Your task to perform on an android device: Open Chrome and go to settings Image 0: 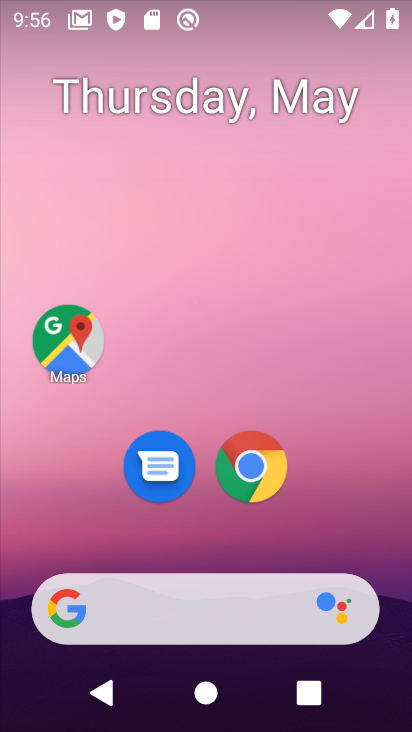
Step 0: click (260, 462)
Your task to perform on an android device: Open Chrome and go to settings Image 1: 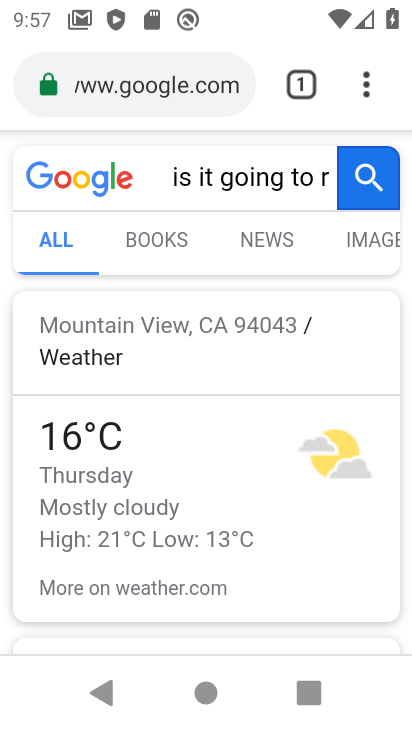
Step 1: task complete